Your task to perform on an android device: Show me recent news Image 0: 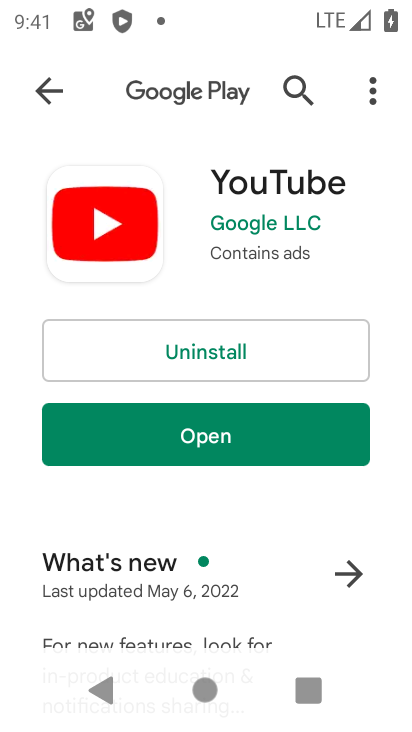
Step 0: press home button
Your task to perform on an android device: Show me recent news Image 1: 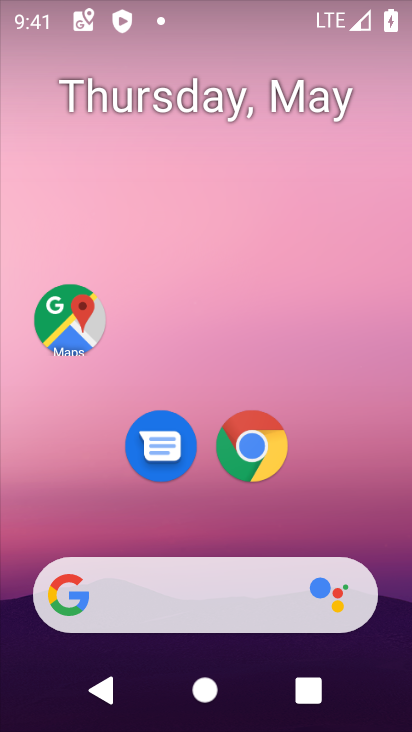
Step 1: task complete